Your task to perform on an android device: star an email in the gmail app Image 0: 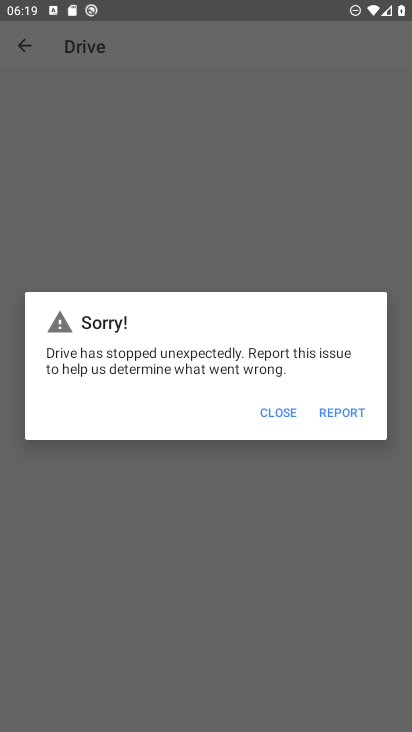
Step 0: press home button
Your task to perform on an android device: star an email in the gmail app Image 1: 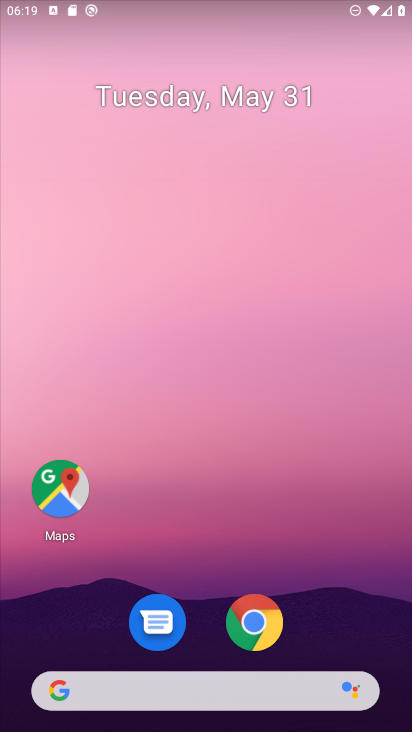
Step 1: drag from (256, 684) to (166, 1)
Your task to perform on an android device: star an email in the gmail app Image 2: 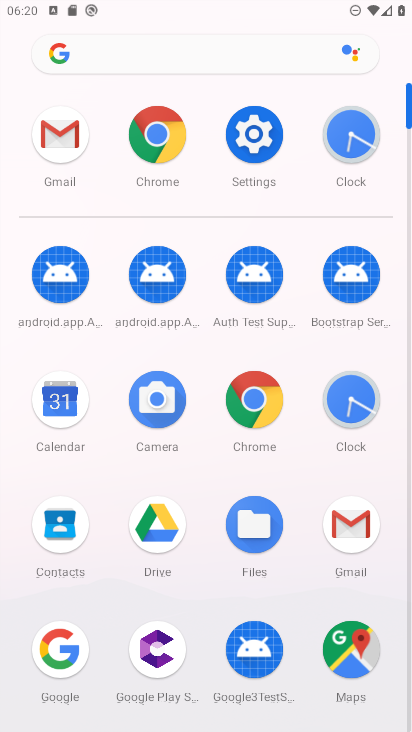
Step 2: click (343, 510)
Your task to perform on an android device: star an email in the gmail app Image 3: 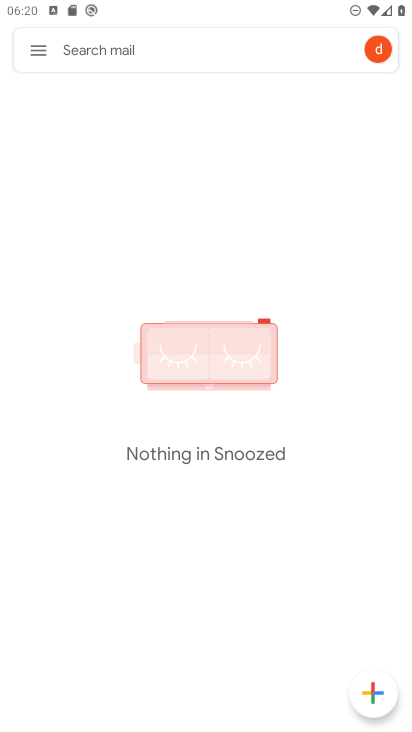
Step 3: click (38, 47)
Your task to perform on an android device: star an email in the gmail app Image 4: 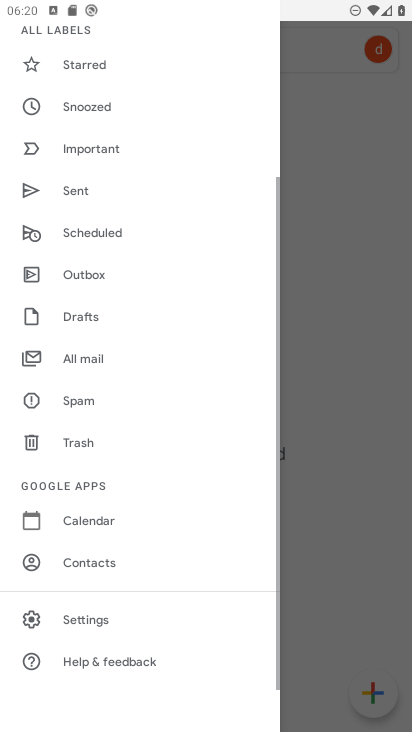
Step 4: drag from (141, 146) to (190, 675)
Your task to perform on an android device: star an email in the gmail app Image 5: 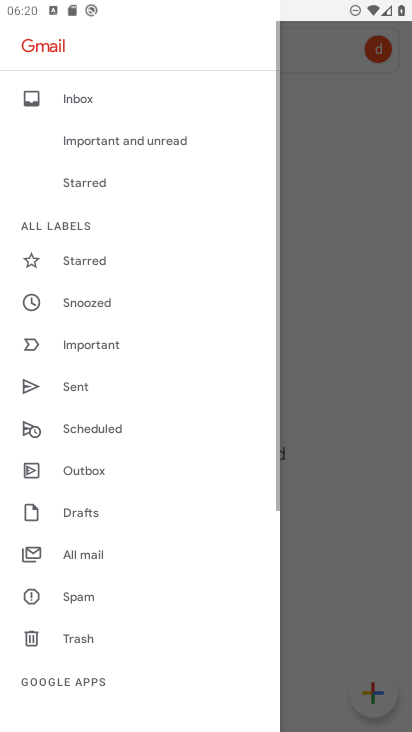
Step 5: click (102, 267)
Your task to perform on an android device: star an email in the gmail app Image 6: 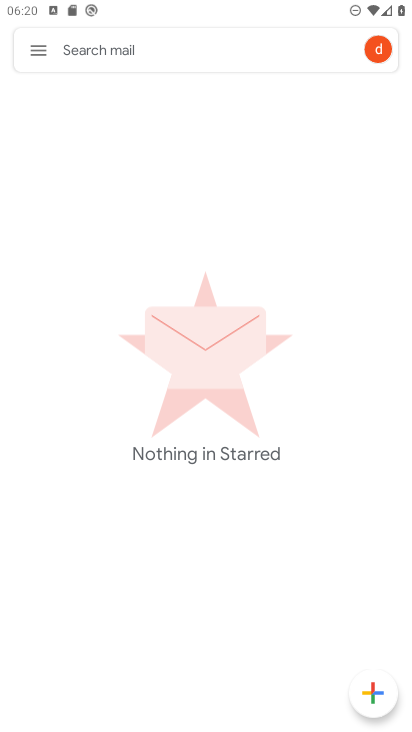
Step 6: task complete